Your task to perform on an android device: Go to Wikipedia Image 0: 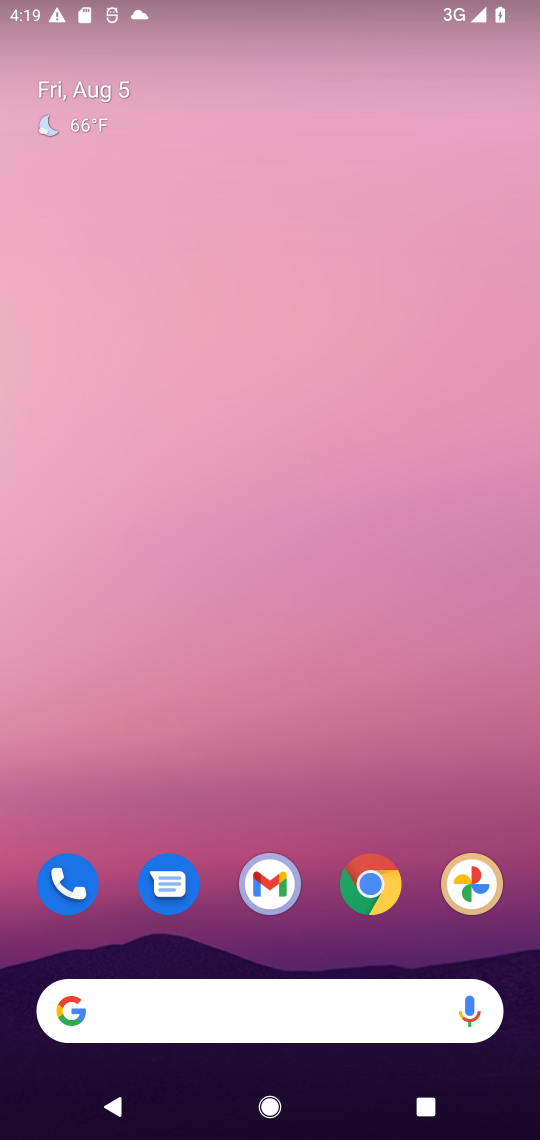
Step 0: drag from (423, 930) to (259, 117)
Your task to perform on an android device: Go to Wikipedia Image 1: 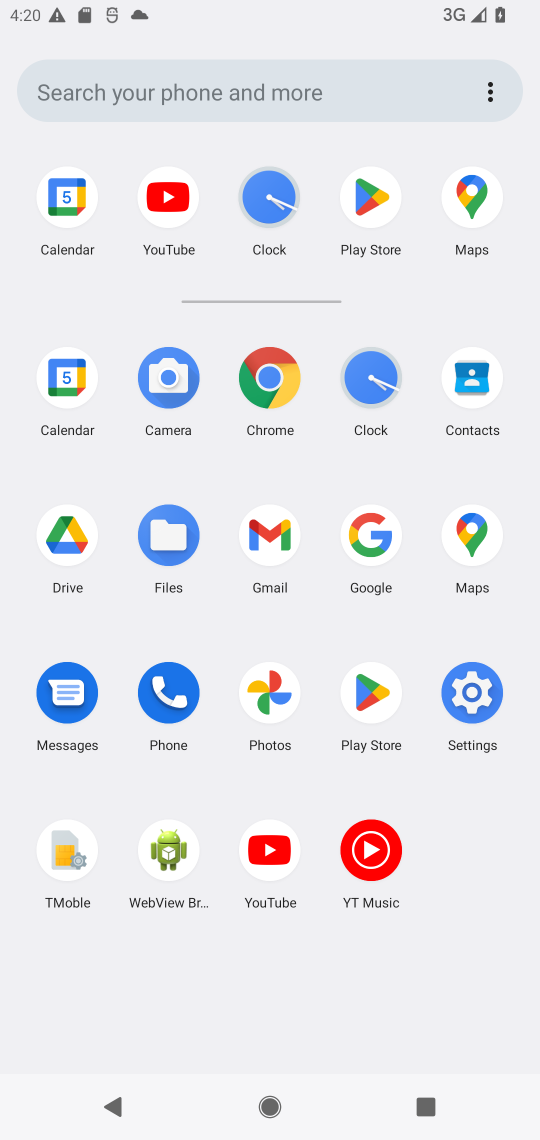
Step 1: click (362, 544)
Your task to perform on an android device: Go to Wikipedia Image 2: 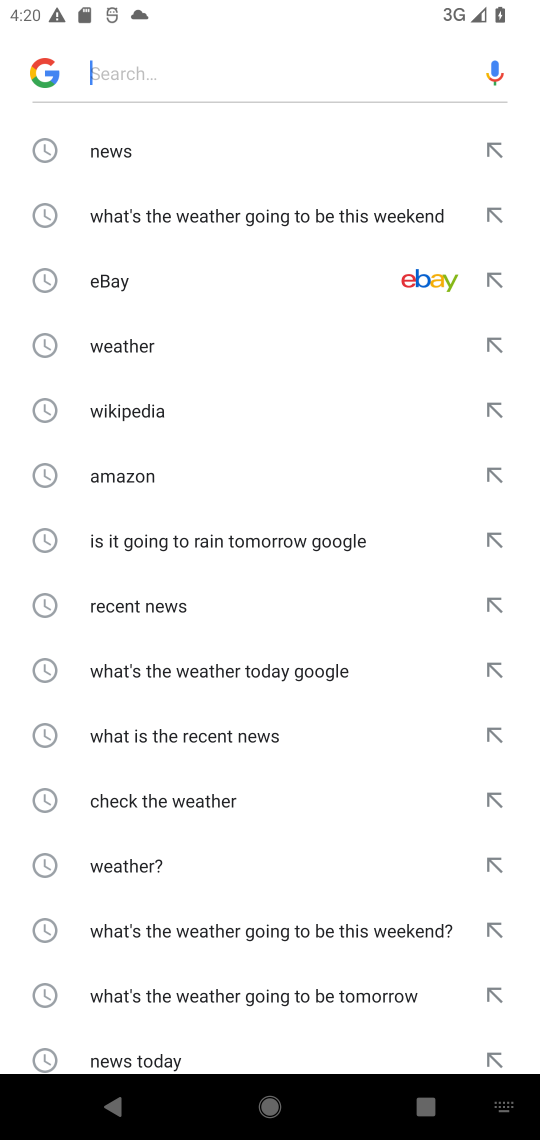
Step 2: click (147, 429)
Your task to perform on an android device: Go to Wikipedia Image 3: 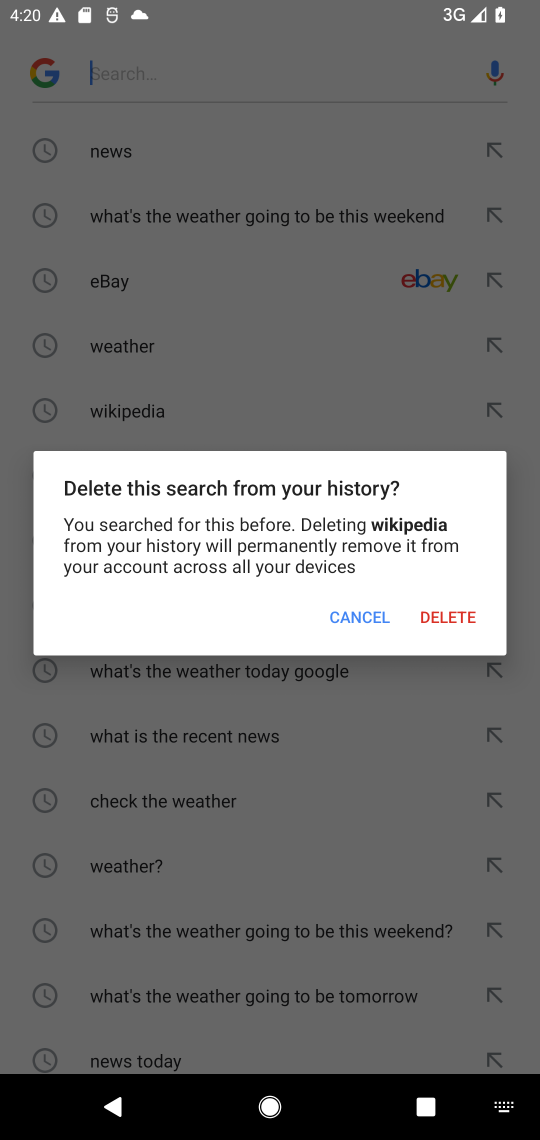
Step 3: click (352, 624)
Your task to perform on an android device: Go to Wikipedia Image 4: 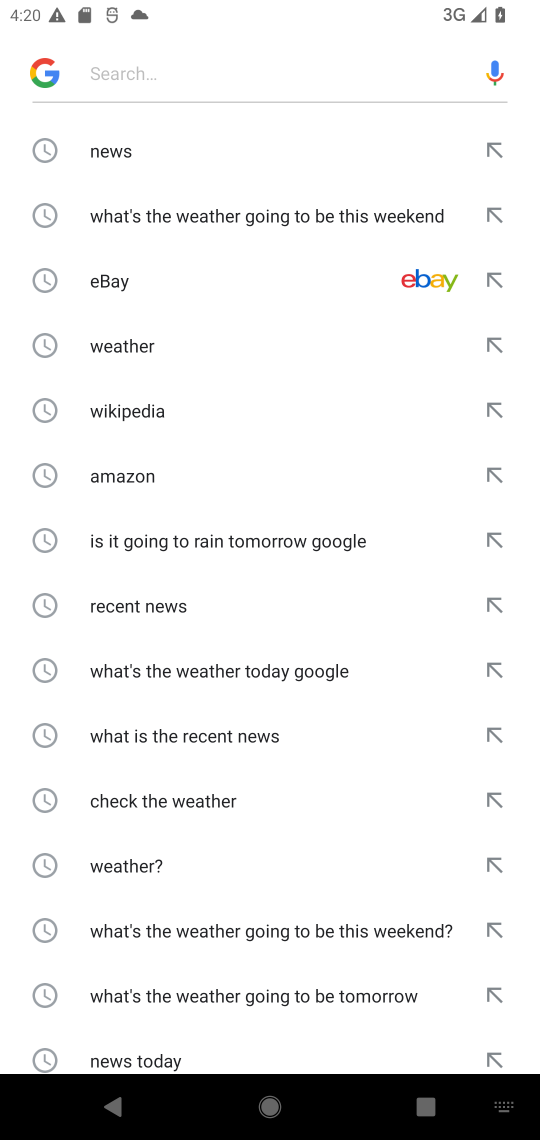
Step 4: click (136, 413)
Your task to perform on an android device: Go to Wikipedia Image 5: 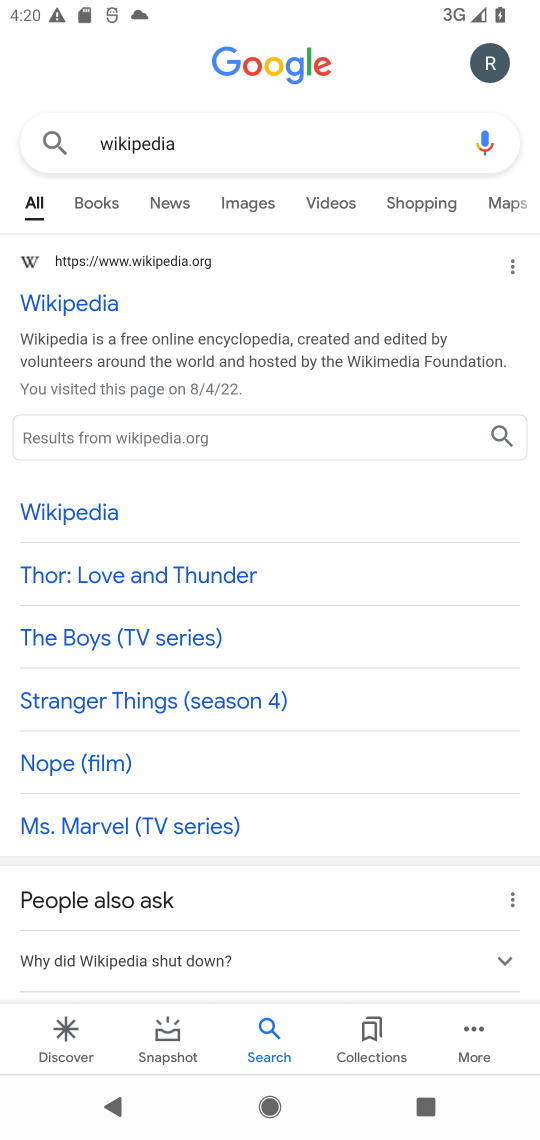
Step 5: task complete